Your task to perform on an android device: open chrome and create a bookmark for the current page Image 0: 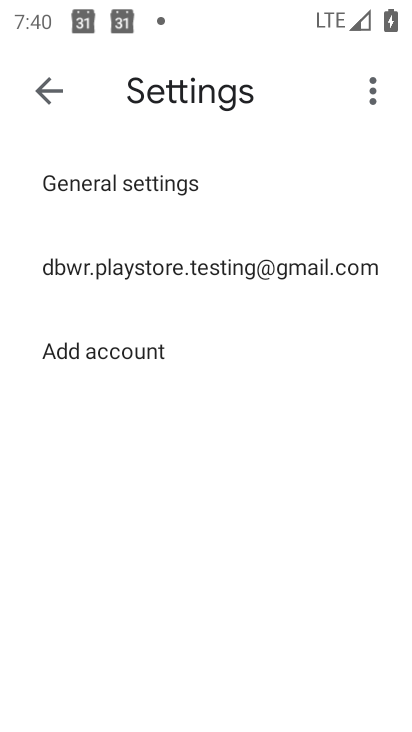
Step 0: click (260, 678)
Your task to perform on an android device: open chrome and create a bookmark for the current page Image 1: 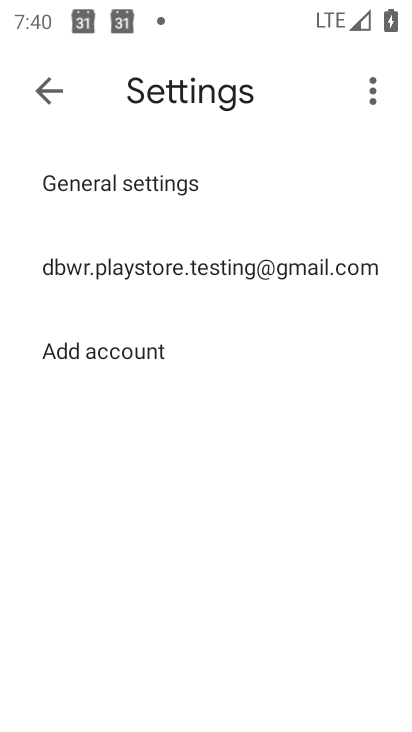
Step 1: press home button
Your task to perform on an android device: open chrome and create a bookmark for the current page Image 2: 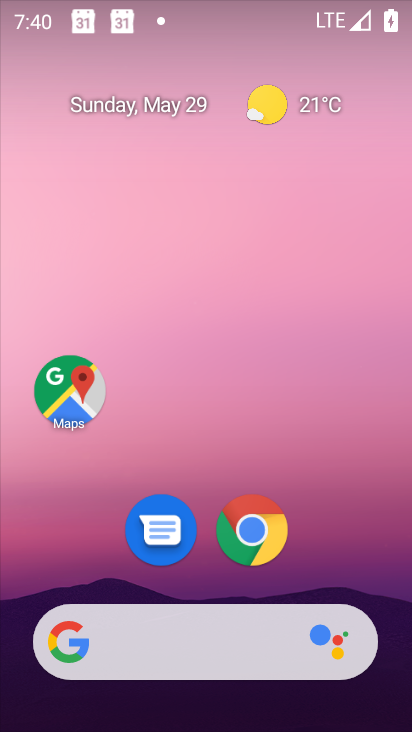
Step 2: drag from (229, 677) to (279, 112)
Your task to perform on an android device: open chrome and create a bookmark for the current page Image 3: 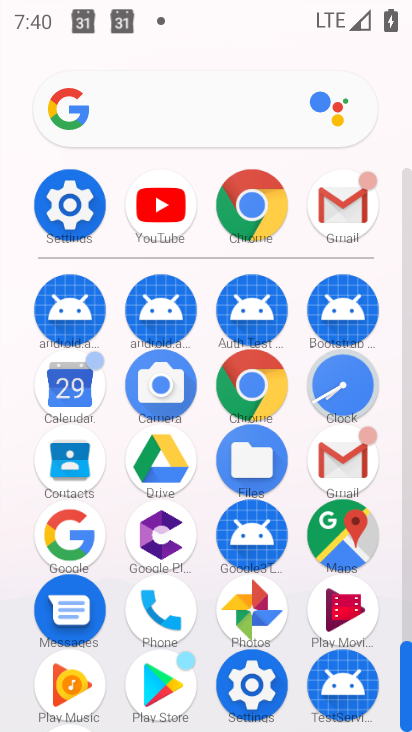
Step 3: click (253, 219)
Your task to perform on an android device: open chrome and create a bookmark for the current page Image 4: 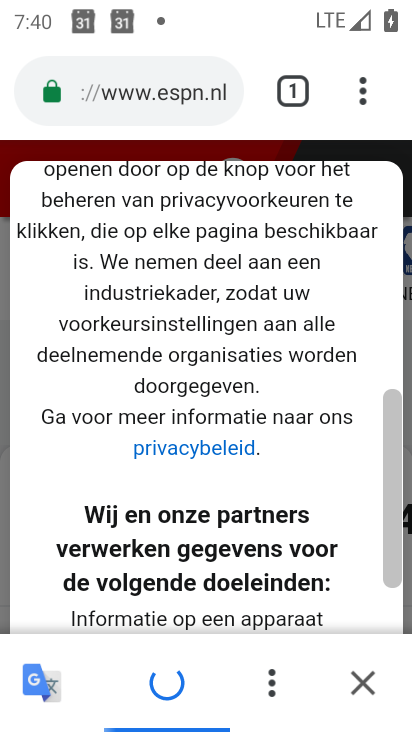
Step 4: click (234, 498)
Your task to perform on an android device: open chrome and create a bookmark for the current page Image 5: 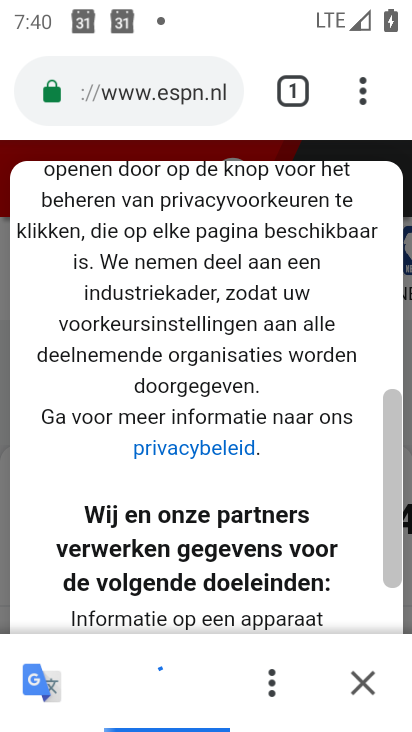
Step 5: click (361, 87)
Your task to perform on an android device: open chrome and create a bookmark for the current page Image 6: 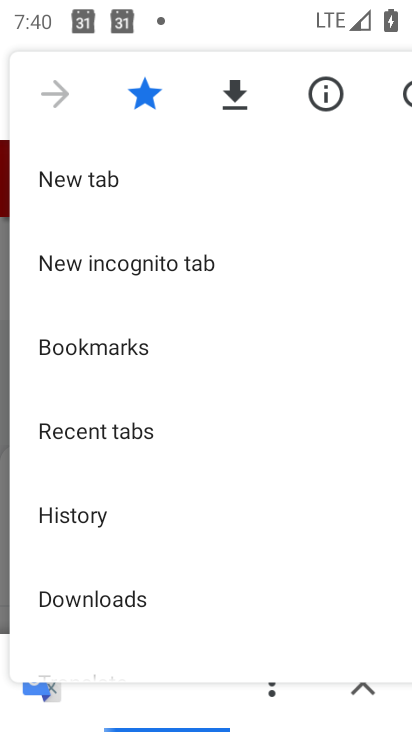
Step 6: click (98, 349)
Your task to perform on an android device: open chrome and create a bookmark for the current page Image 7: 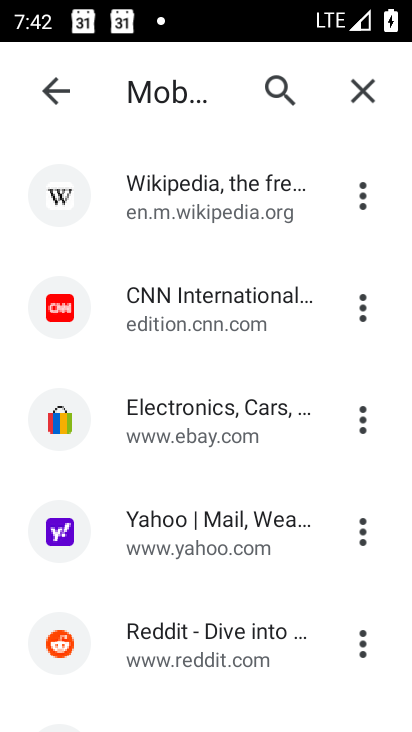
Step 7: task complete